Your task to perform on an android device: What's the weather? Image 0: 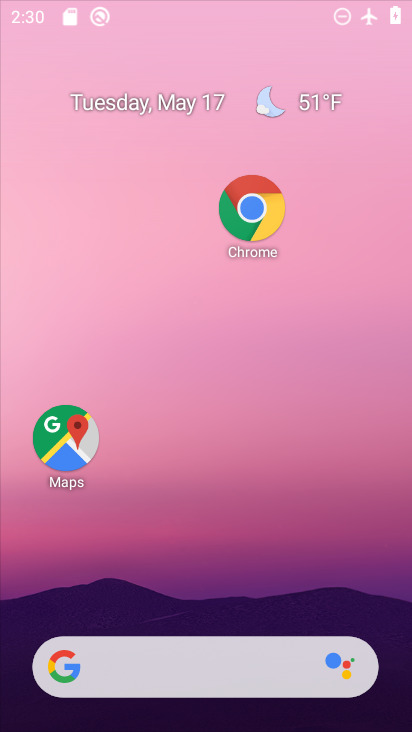
Step 0: press back button
Your task to perform on an android device: What's the weather? Image 1: 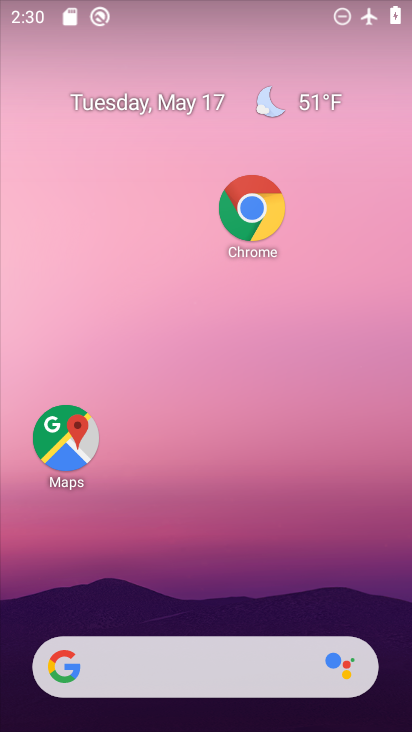
Step 1: click (210, 651)
Your task to perform on an android device: What's the weather? Image 2: 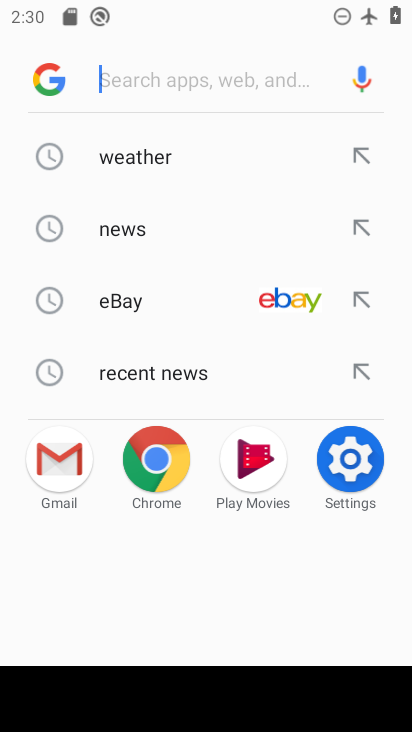
Step 2: click (204, 137)
Your task to perform on an android device: What's the weather? Image 3: 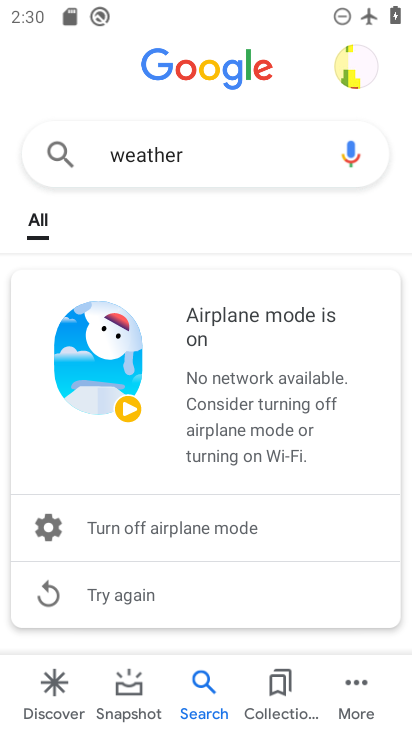
Step 3: task complete